Your task to perform on an android device: Go to ESPN.com Image 0: 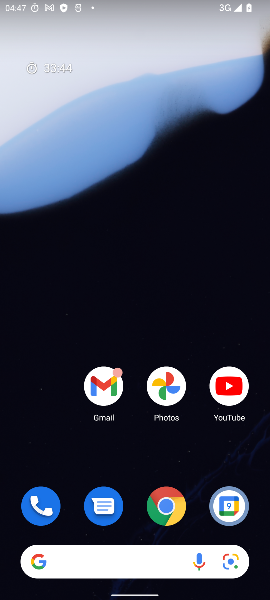
Step 0: drag from (118, 399) to (156, 146)
Your task to perform on an android device: Go to ESPN.com Image 1: 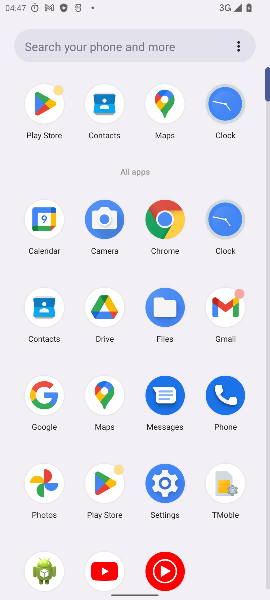
Step 1: click (163, 219)
Your task to perform on an android device: Go to ESPN.com Image 2: 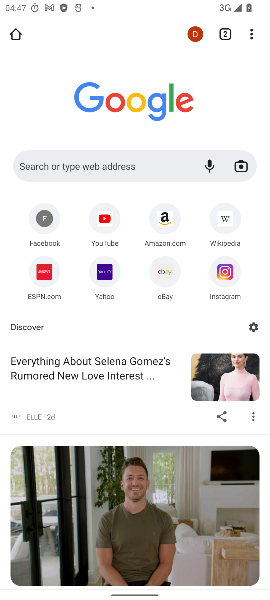
Step 2: click (40, 278)
Your task to perform on an android device: Go to ESPN.com Image 3: 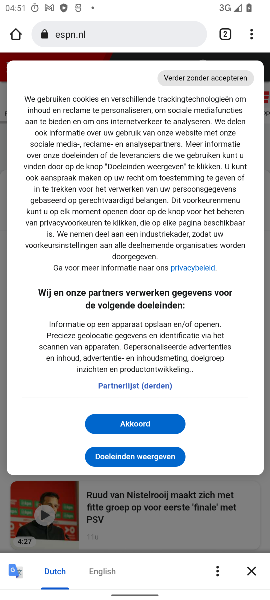
Step 3: task complete